Your task to perform on an android device: Open Youtube and go to the subscriptions tab Image 0: 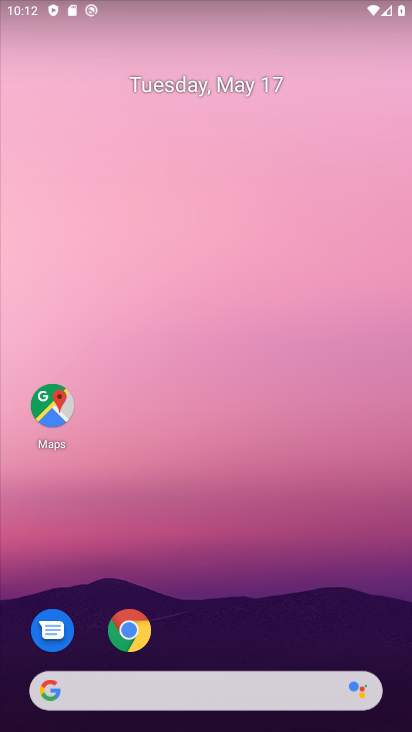
Step 0: drag from (219, 635) to (271, 86)
Your task to perform on an android device: Open Youtube and go to the subscriptions tab Image 1: 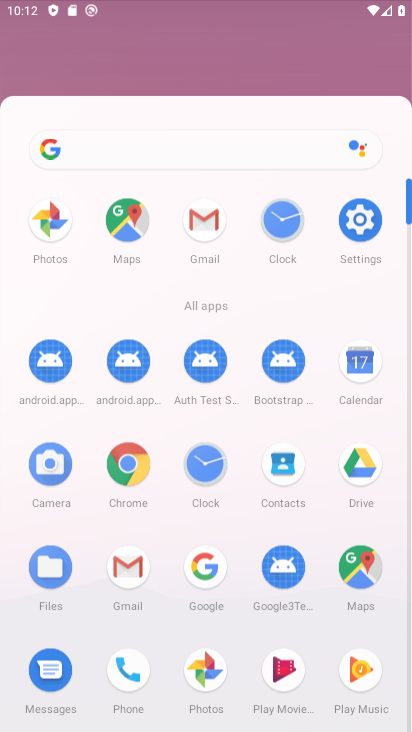
Step 1: drag from (276, 610) to (299, 187)
Your task to perform on an android device: Open Youtube and go to the subscriptions tab Image 2: 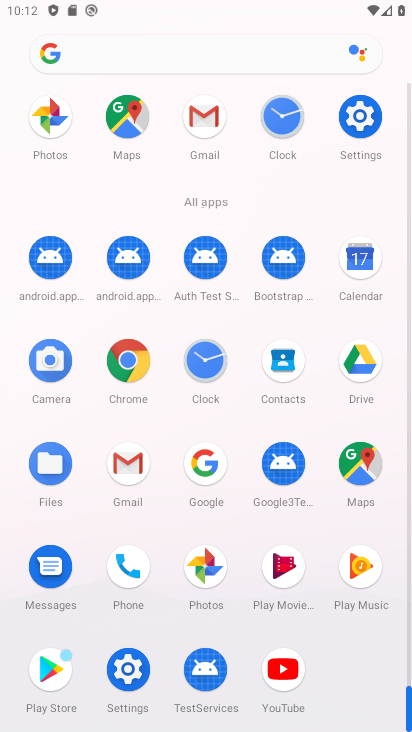
Step 2: click (274, 679)
Your task to perform on an android device: Open Youtube and go to the subscriptions tab Image 3: 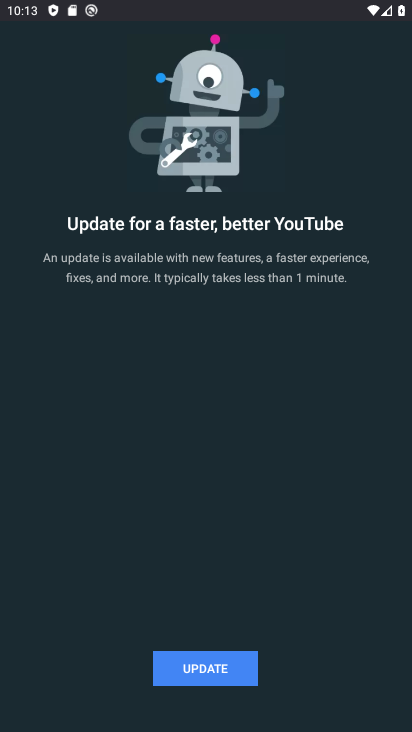
Step 3: task complete